Your task to perform on an android device: Open Yahoo.com Image 0: 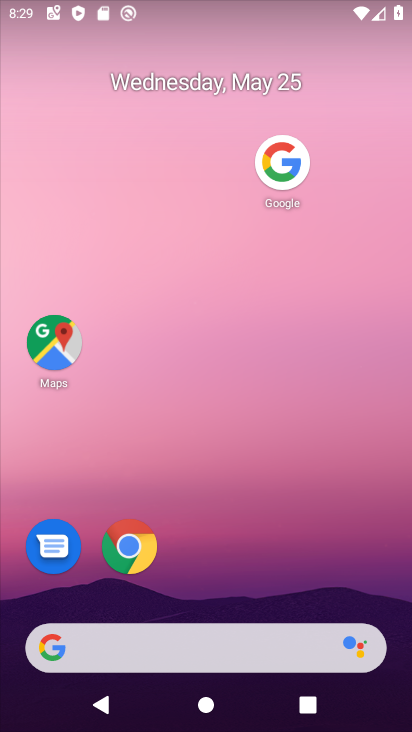
Step 0: click (135, 558)
Your task to perform on an android device: Open Yahoo.com Image 1: 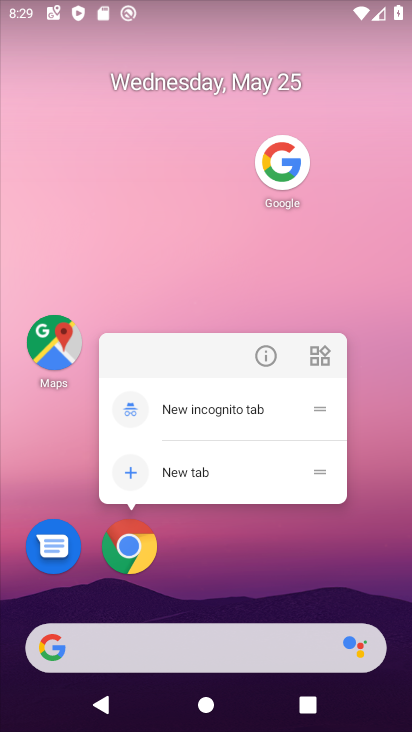
Step 1: click (134, 557)
Your task to perform on an android device: Open Yahoo.com Image 2: 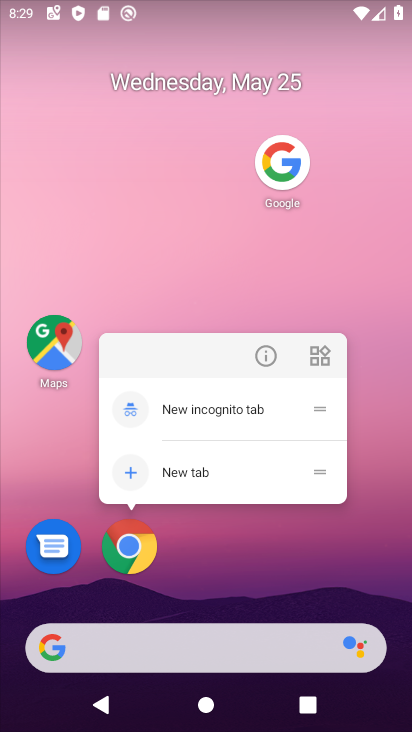
Step 2: click (131, 547)
Your task to perform on an android device: Open Yahoo.com Image 3: 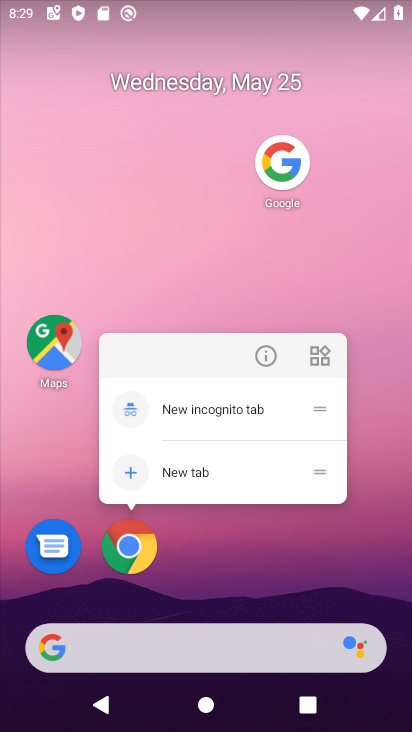
Step 3: click (131, 554)
Your task to perform on an android device: Open Yahoo.com Image 4: 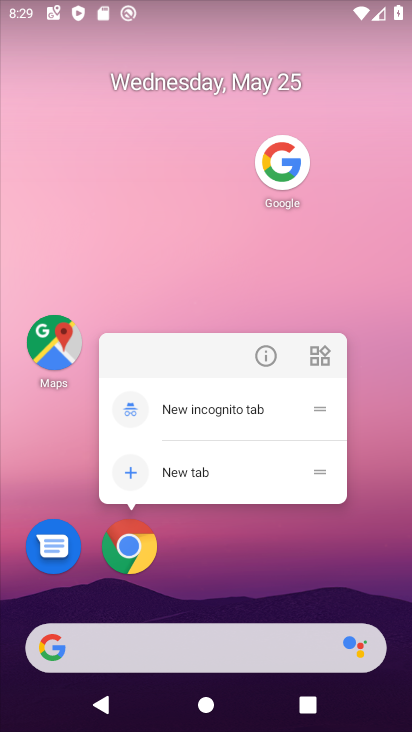
Step 4: click (133, 561)
Your task to perform on an android device: Open Yahoo.com Image 5: 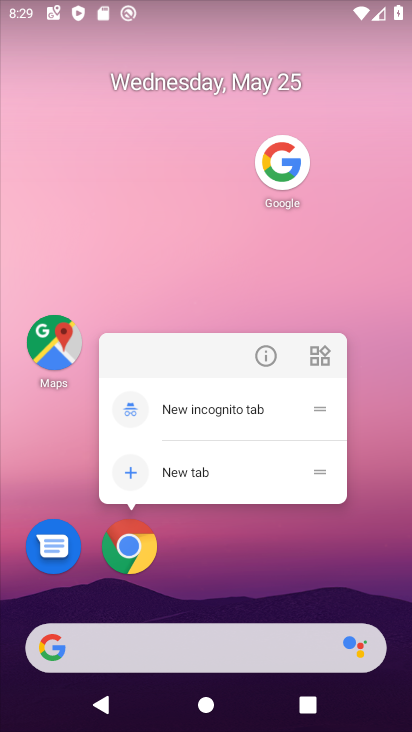
Step 5: click (124, 550)
Your task to perform on an android device: Open Yahoo.com Image 6: 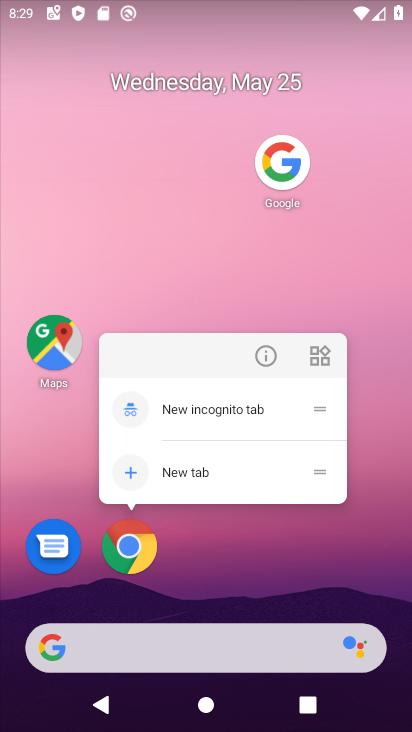
Step 6: click (136, 558)
Your task to perform on an android device: Open Yahoo.com Image 7: 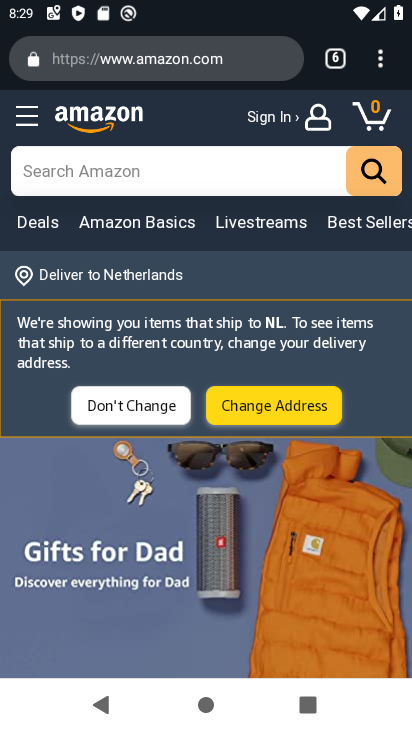
Step 7: drag from (383, 71) to (278, 119)
Your task to perform on an android device: Open Yahoo.com Image 8: 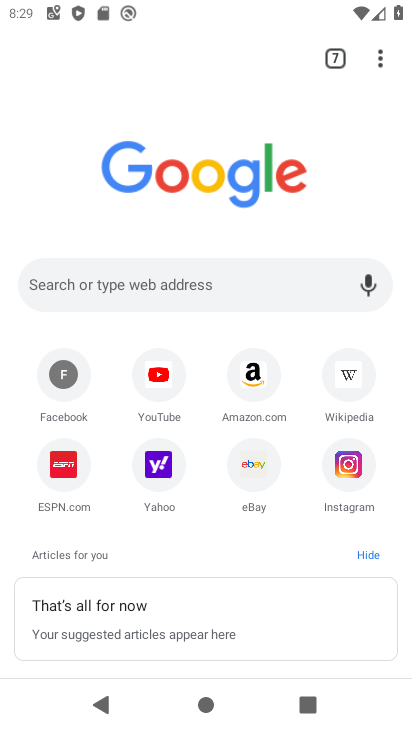
Step 8: click (155, 465)
Your task to perform on an android device: Open Yahoo.com Image 9: 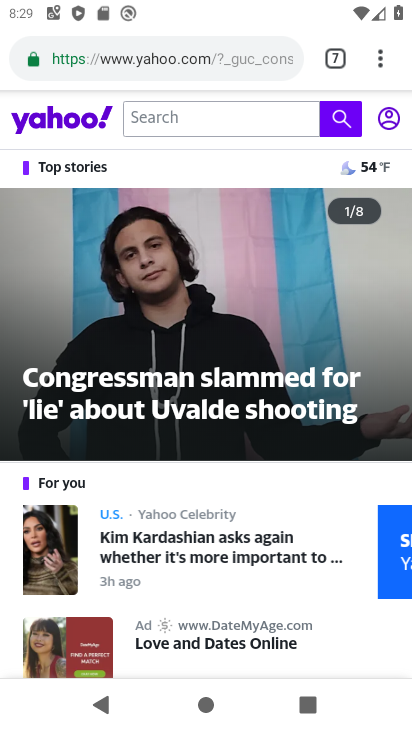
Step 9: task complete